Your task to perform on an android device: Go to Maps Image 0: 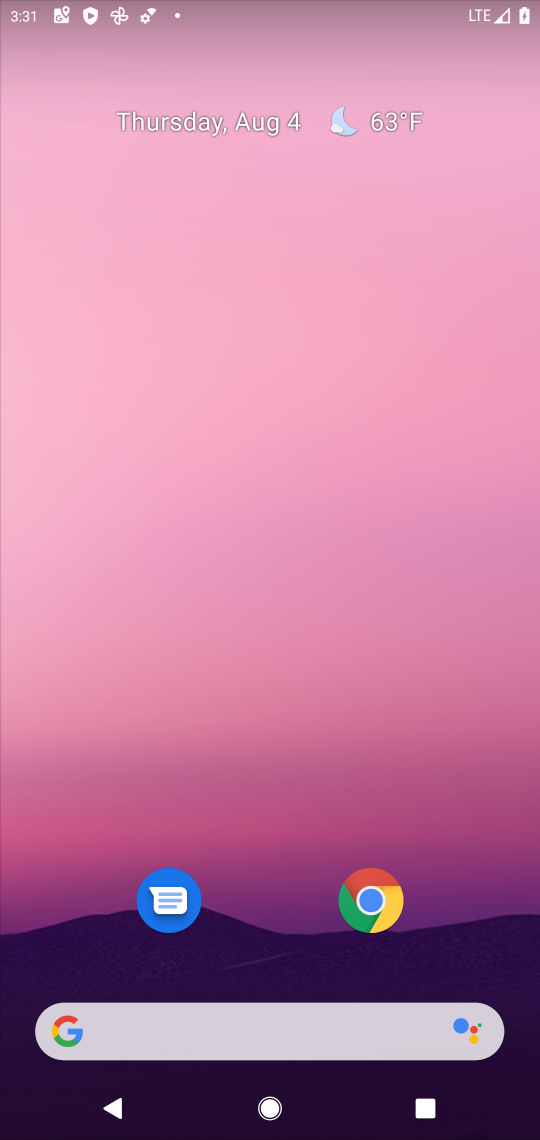
Step 0: drag from (481, 930) to (331, 12)
Your task to perform on an android device: Go to Maps Image 1: 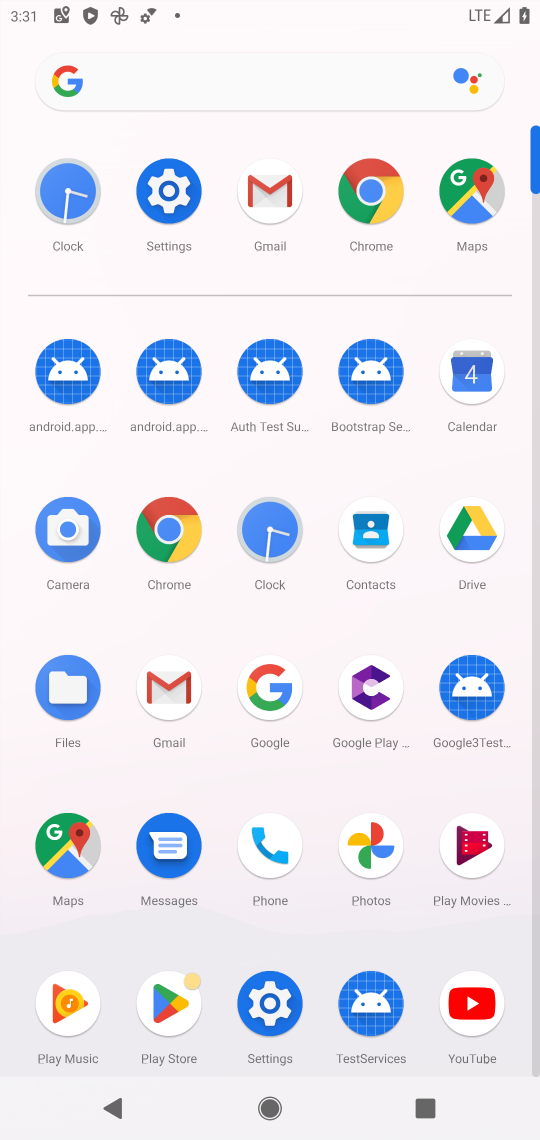
Step 1: click (477, 232)
Your task to perform on an android device: Go to Maps Image 2: 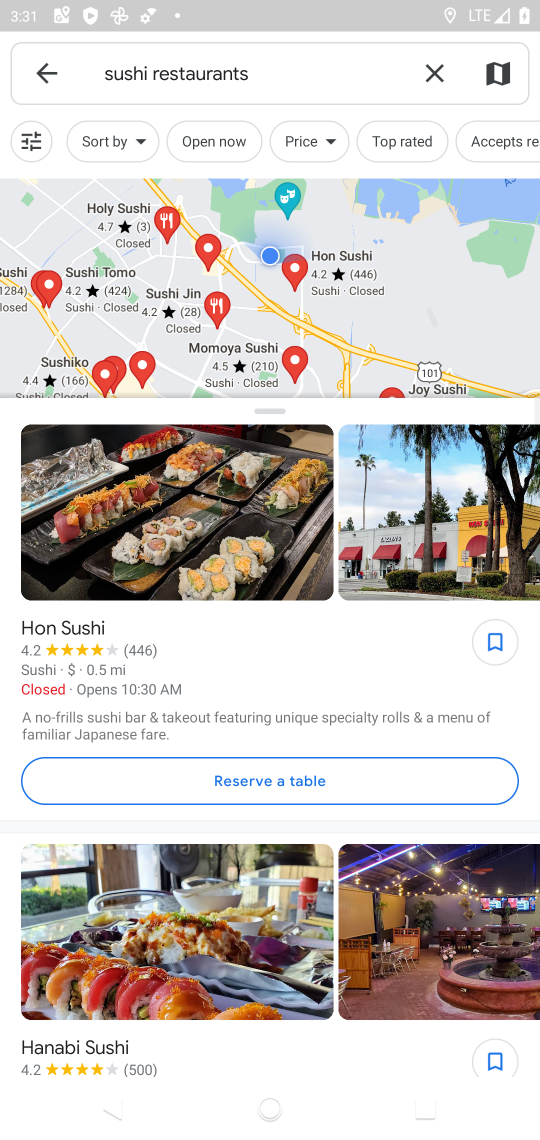
Step 2: task complete